Your task to perform on an android device: check data usage Image 0: 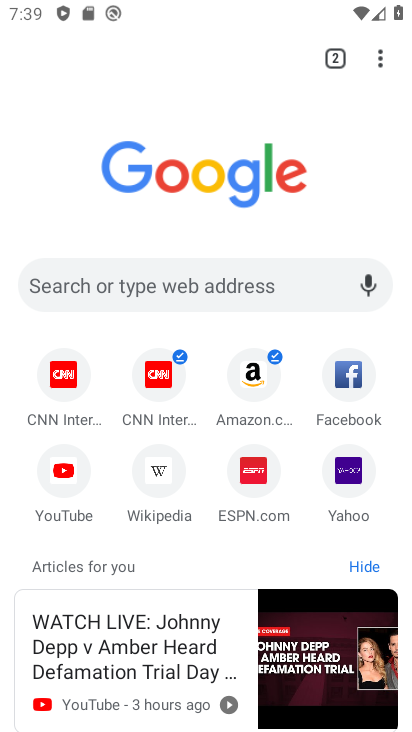
Step 0: press home button
Your task to perform on an android device: check data usage Image 1: 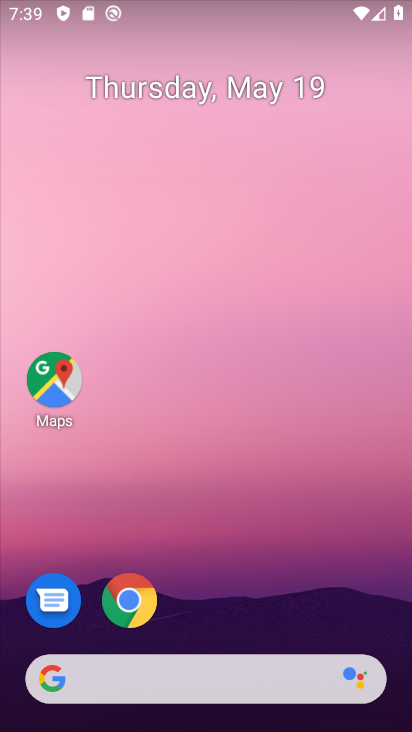
Step 1: drag from (248, 629) to (184, 15)
Your task to perform on an android device: check data usage Image 2: 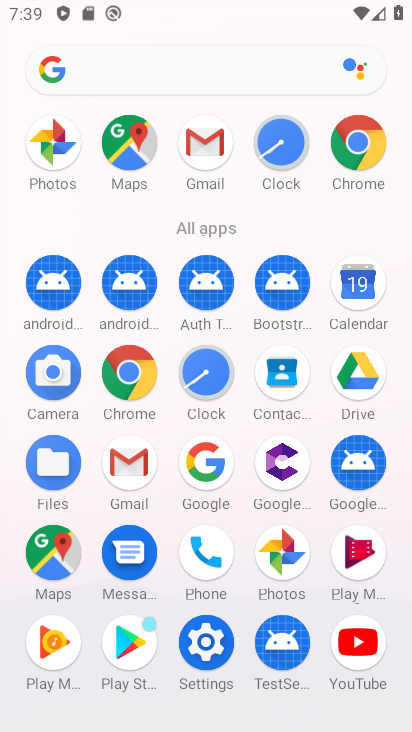
Step 2: click (200, 648)
Your task to perform on an android device: check data usage Image 3: 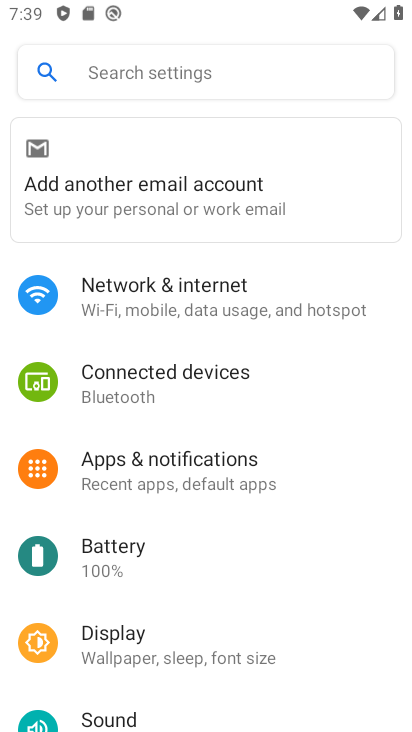
Step 3: click (128, 301)
Your task to perform on an android device: check data usage Image 4: 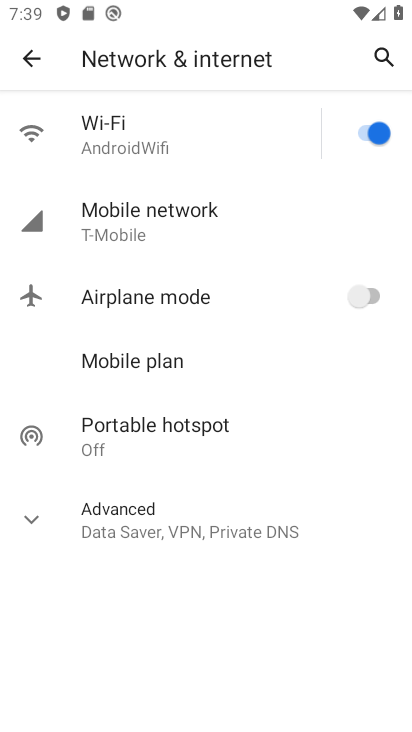
Step 4: click (120, 240)
Your task to perform on an android device: check data usage Image 5: 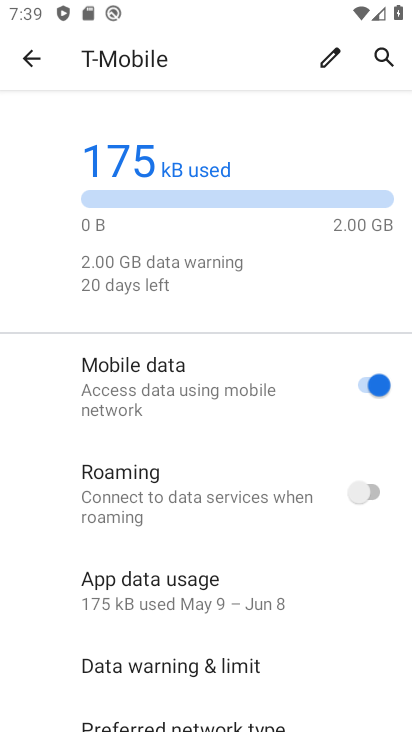
Step 5: click (140, 609)
Your task to perform on an android device: check data usage Image 6: 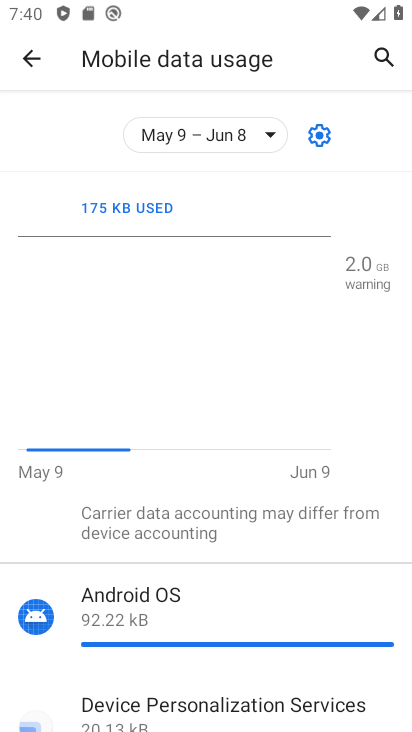
Step 6: task complete